Your task to perform on an android device: Go to sound settings Image 0: 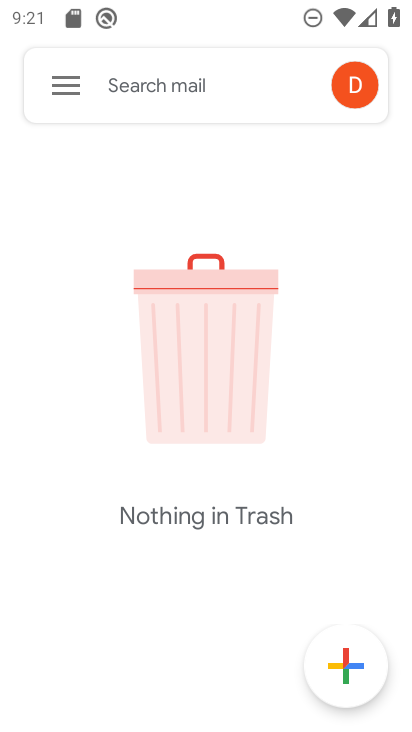
Step 0: press home button
Your task to perform on an android device: Go to sound settings Image 1: 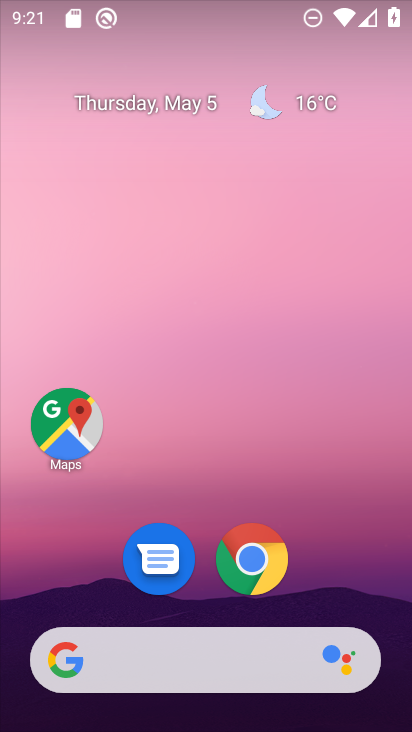
Step 1: drag from (352, 573) to (379, 31)
Your task to perform on an android device: Go to sound settings Image 2: 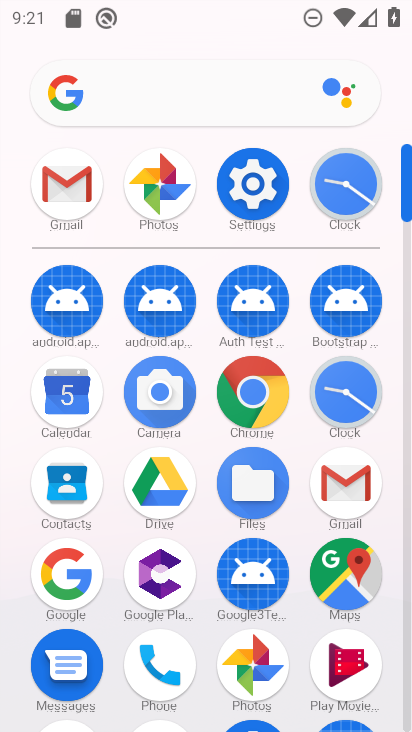
Step 2: click (254, 189)
Your task to perform on an android device: Go to sound settings Image 3: 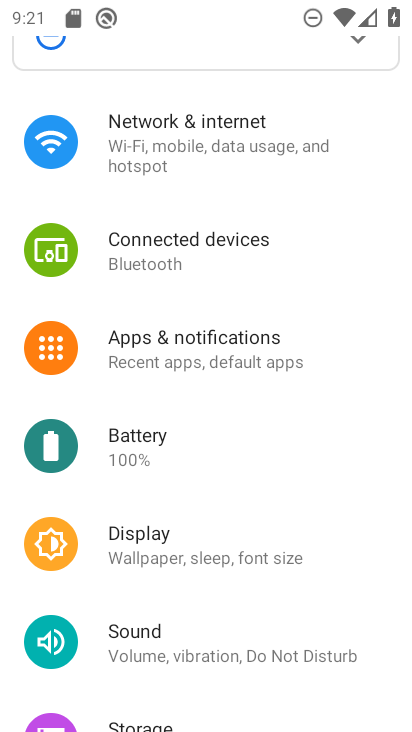
Step 3: click (137, 644)
Your task to perform on an android device: Go to sound settings Image 4: 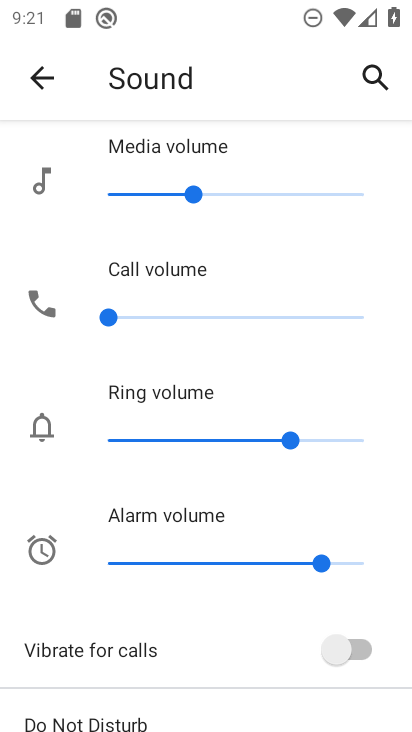
Step 4: task complete